Your task to perform on an android device: Set the phone to "Do not disturb". Image 0: 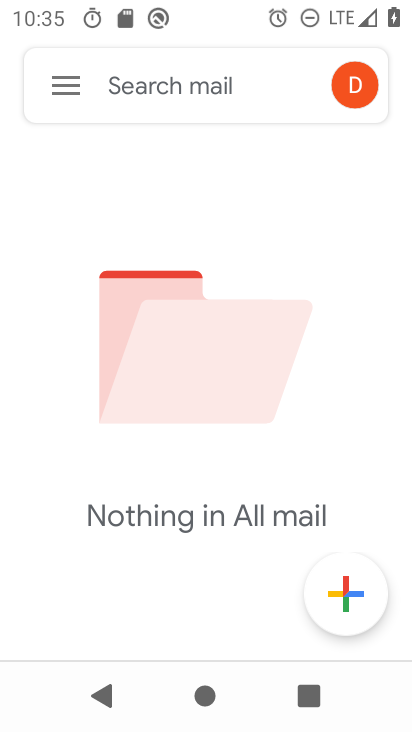
Step 0: press home button
Your task to perform on an android device: Set the phone to "Do not disturb". Image 1: 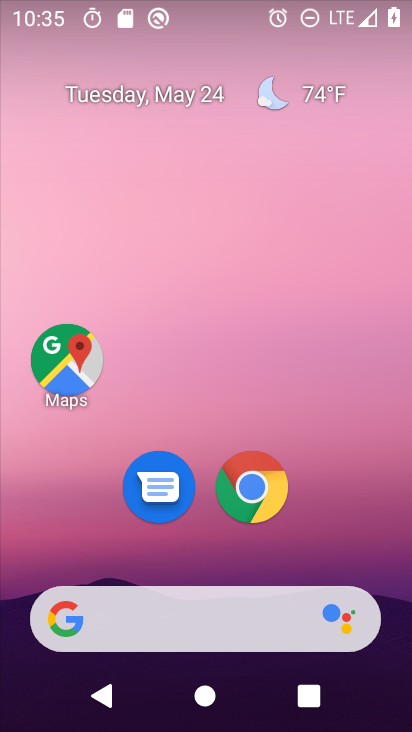
Step 1: drag from (359, 562) to (314, 32)
Your task to perform on an android device: Set the phone to "Do not disturb". Image 2: 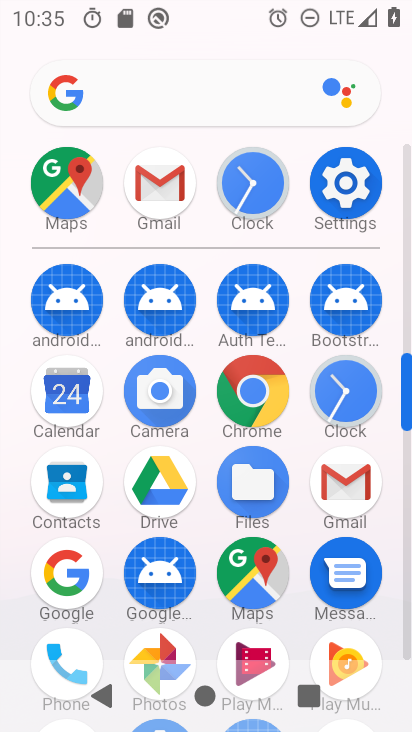
Step 2: click (350, 188)
Your task to perform on an android device: Set the phone to "Do not disturb". Image 3: 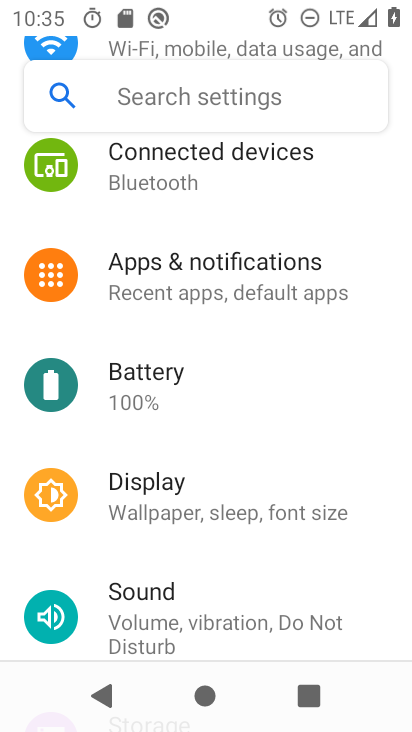
Step 3: click (140, 609)
Your task to perform on an android device: Set the phone to "Do not disturb". Image 4: 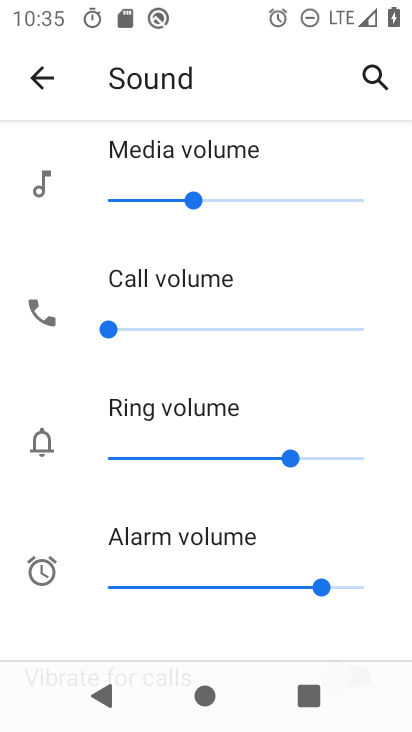
Step 4: drag from (346, 556) to (309, 100)
Your task to perform on an android device: Set the phone to "Do not disturb". Image 5: 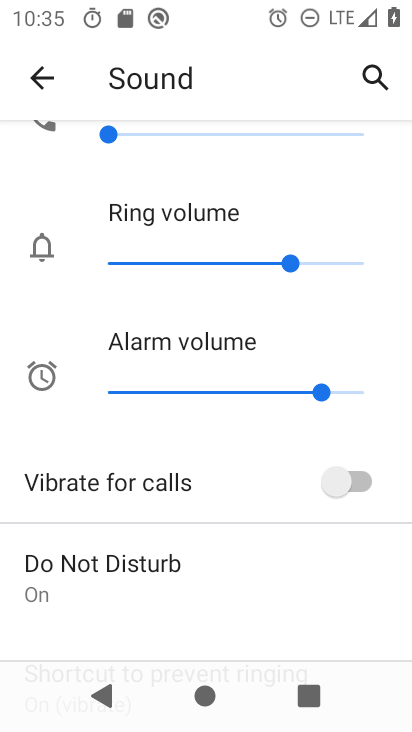
Step 5: click (99, 569)
Your task to perform on an android device: Set the phone to "Do not disturb". Image 6: 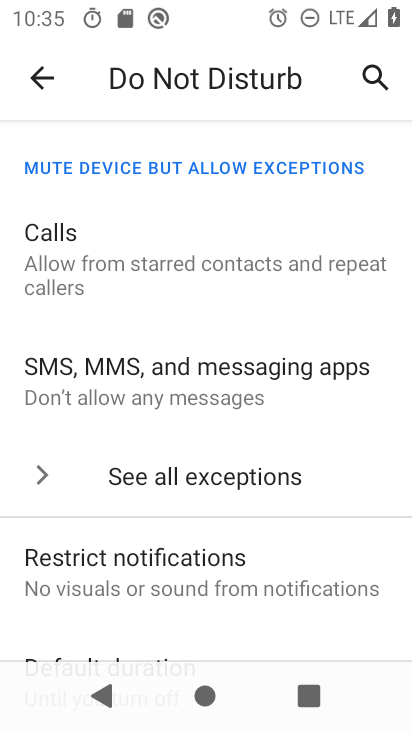
Step 6: task complete